Your task to perform on an android device: Open ESPN.com Image 0: 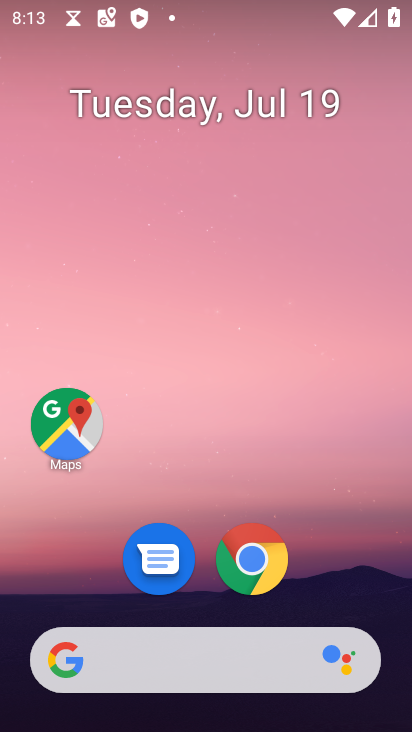
Step 0: click (250, 560)
Your task to perform on an android device: Open ESPN.com Image 1: 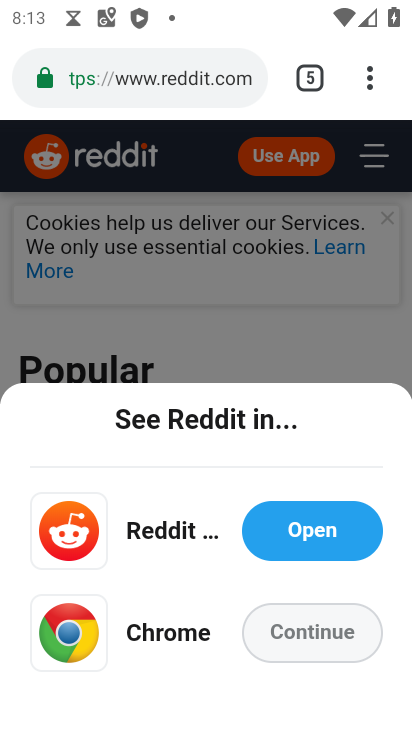
Step 1: click (317, 82)
Your task to perform on an android device: Open ESPN.com Image 2: 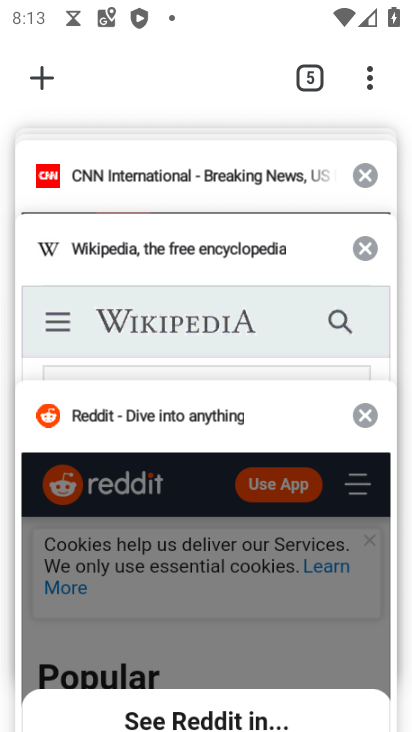
Step 2: drag from (146, 190) to (192, 705)
Your task to perform on an android device: Open ESPN.com Image 3: 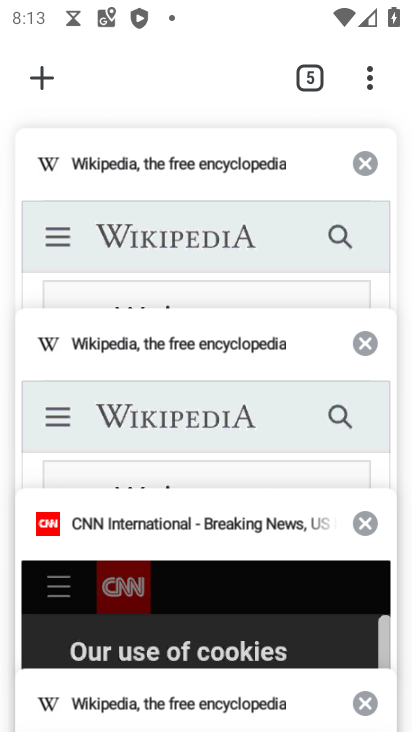
Step 3: click (41, 80)
Your task to perform on an android device: Open ESPN.com Image 4: 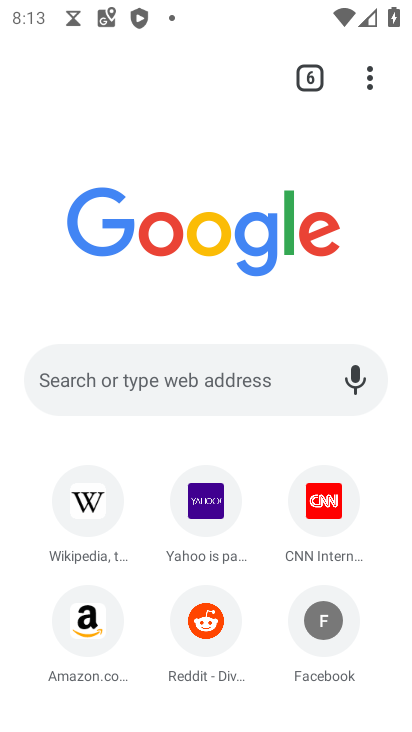
Step 4: click (129, 378)
Your task to perform on an android device: Open ESPN.com Image 5: 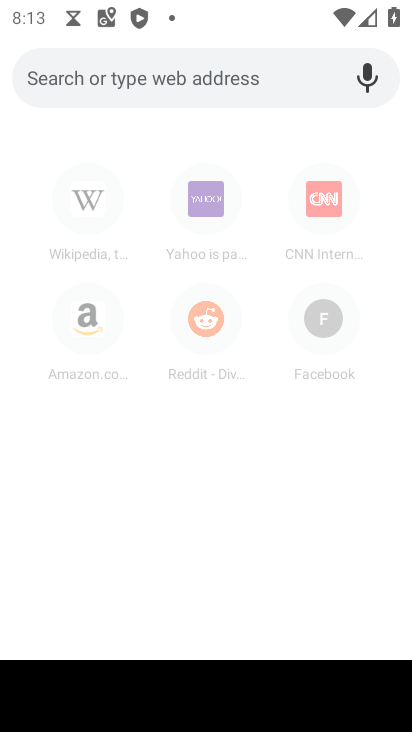
Step 5: type "espn.com"
Your task to perform on an android device: Open ESPN.com Image 6: 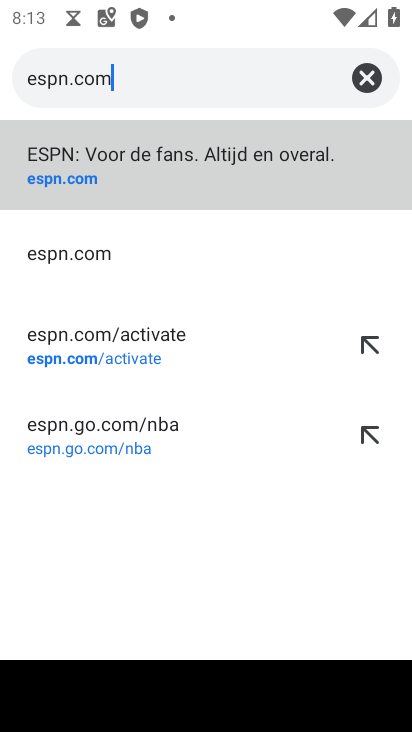
Step 6: click (158, 163)
Your task to perform on an android device: Open ESPN.com Image 7: 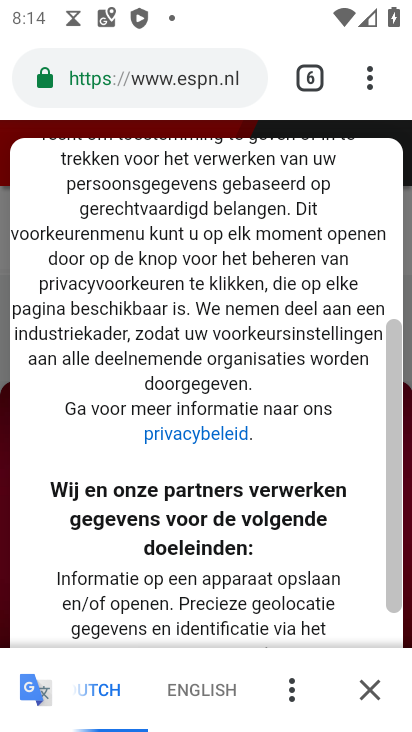
Step 7: task complete